Your task to perform on an android device: Add "usb-a" to the cart on newegg Image 0: 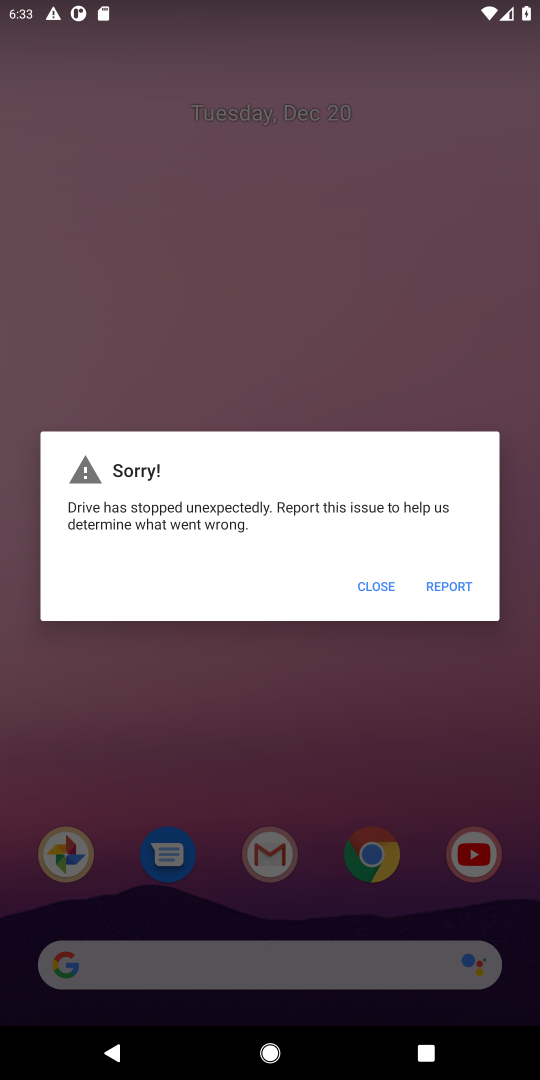
Step 0: press home button
Your task to perform on an android device: Add "usb-a" to the cart on newegg Image 1: 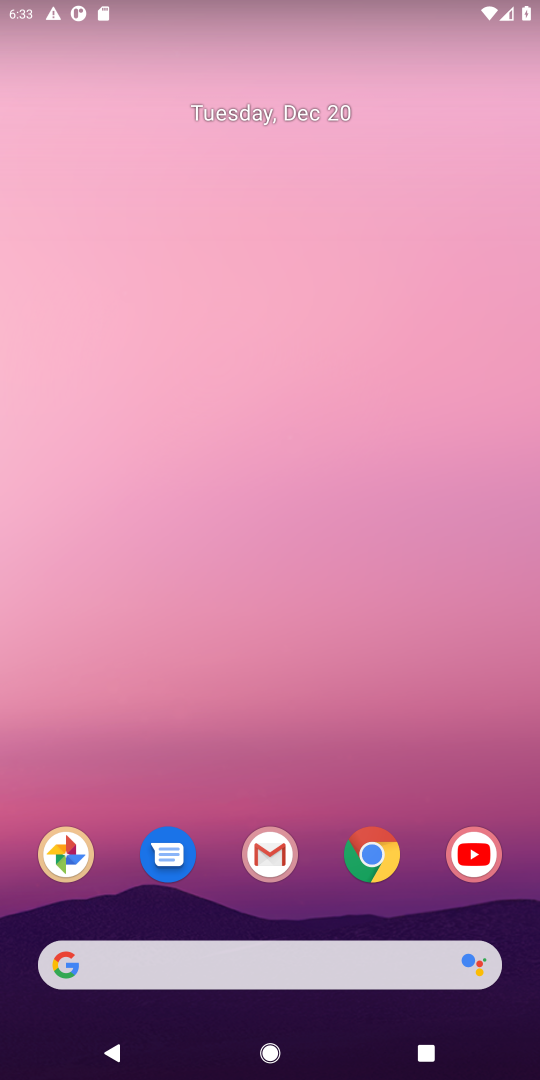
Step 1: click (371, 867)
Your task to perform on an android device: Add "usb-a" to the cart on newegg Image 2: 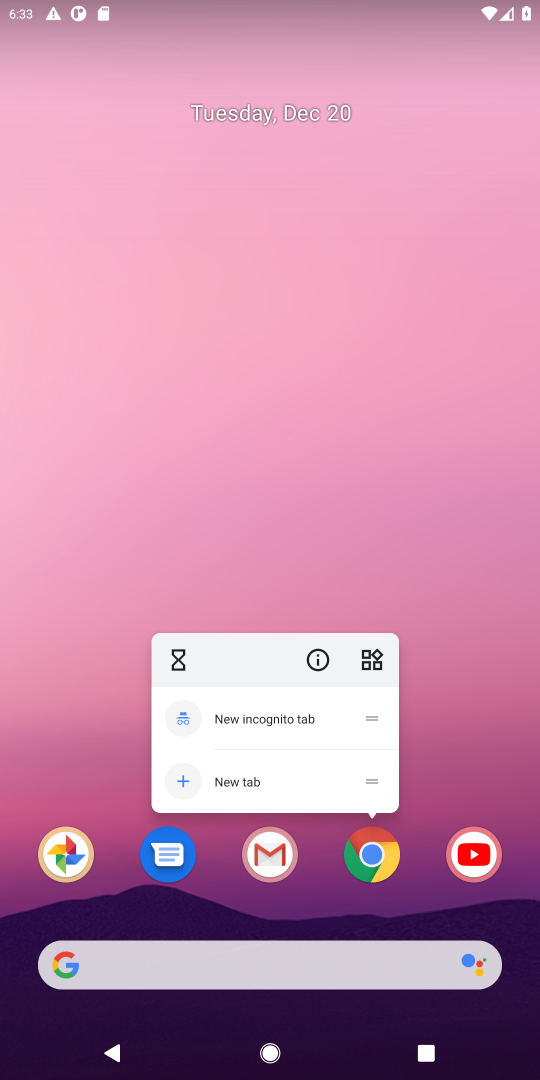
Step 2: click (370, 864)
Your task to perform on an android device: Add "usb-a" to the cart on newegg Image 3: 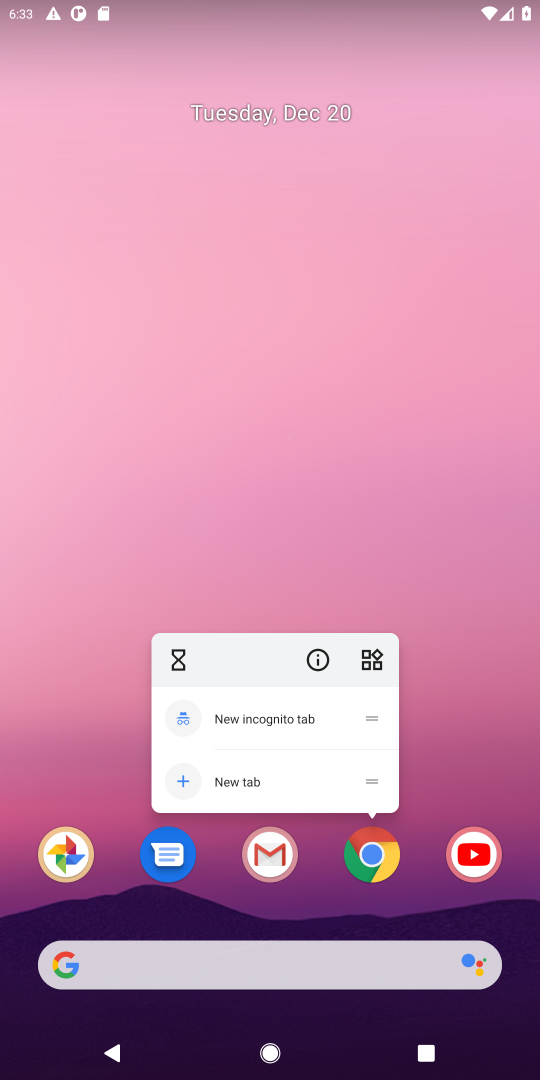
Step 3: click (373, 860)
Your task to perform on an android device: Add "usb-a" to the cart on newegg Image 4: 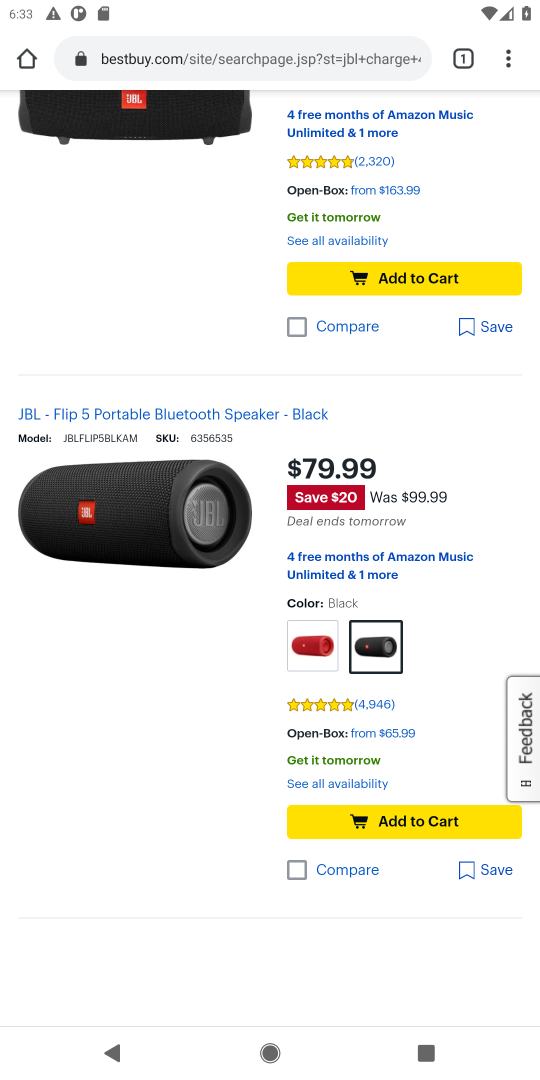
Step 4: click (164, 67)
Your task to perform on an android device: Add "usb-a" to the cart on newegg Image 5: 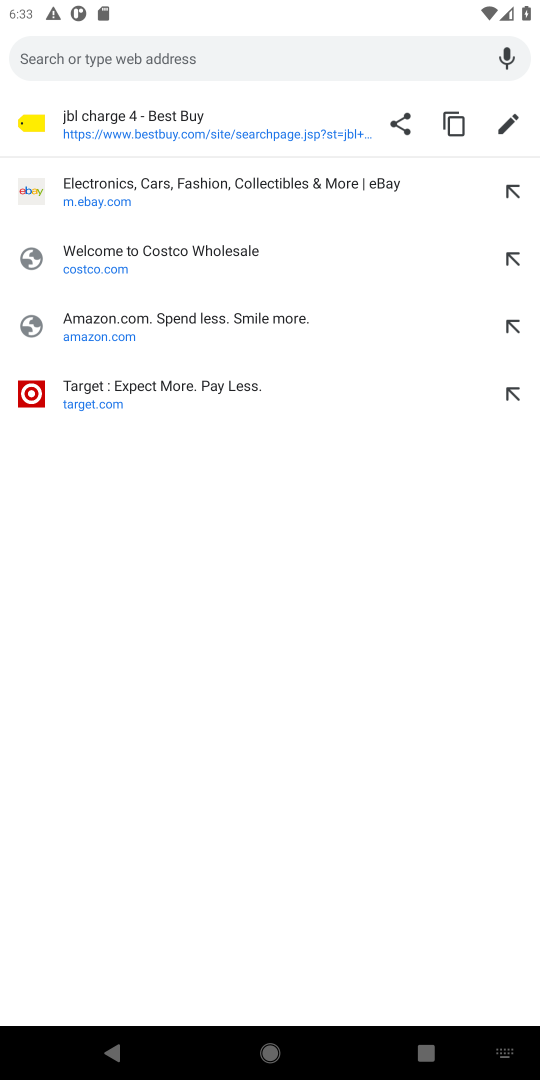
Step 5: type "newegg.com"
Your task to perform on an android device: Add "usb-a" to the cart on newegg Image 6: 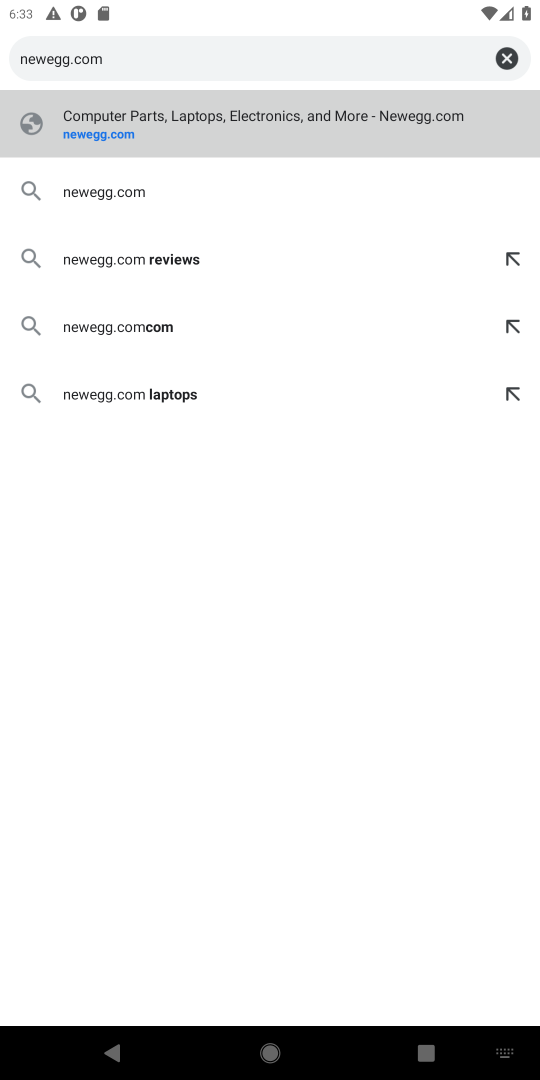
Step 6: click (98, 136)
Your task to perform on an android device: Add "usb-a" to the cart on newegg Image 7: 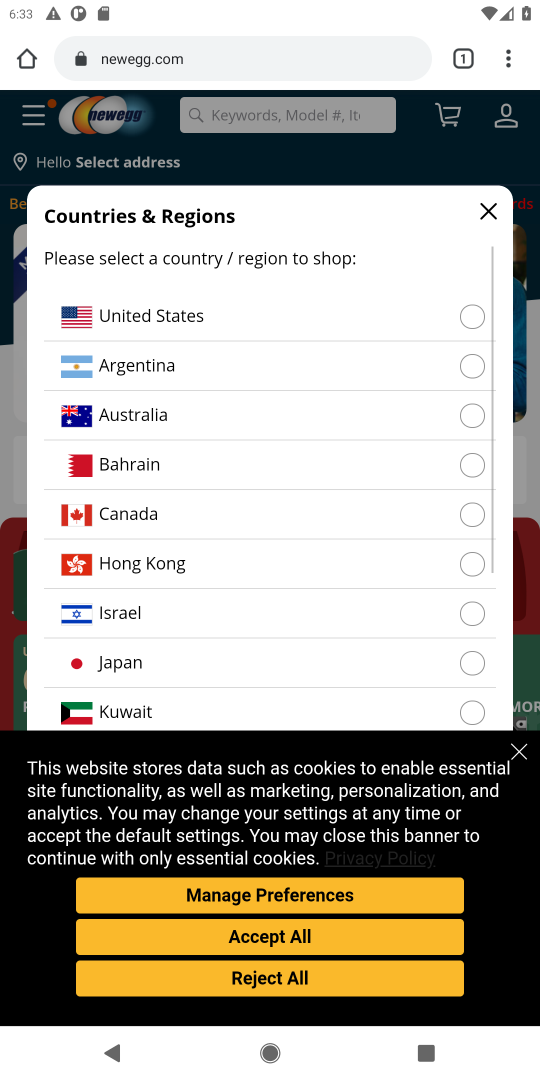
Step 7: click (522, 760)
Your task to perform on an android device: Add "usb-a" to the cart on newegg Image 8: 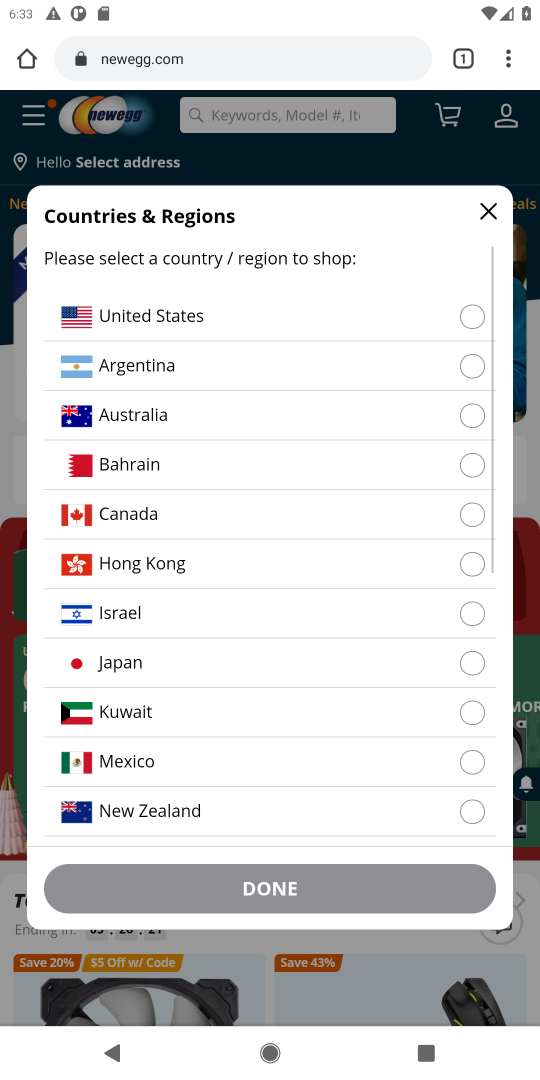
Step 8: click (139, 314)
Your task to perform on an android device: Add "usb-a" to the cart on newegg Image 9: 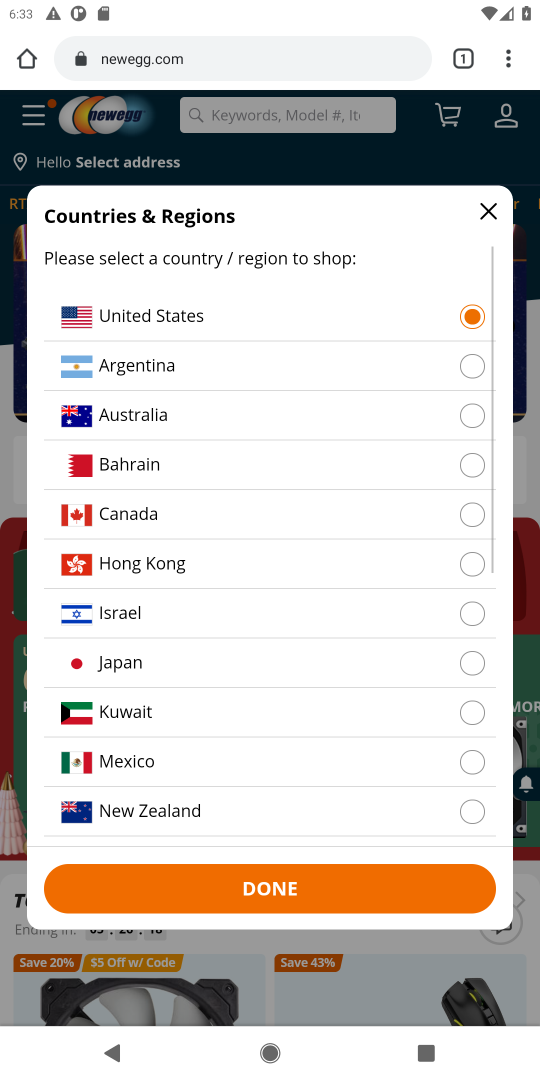
Step 9: click (284, 886)
Your task to perform on an android device: Add "usb-a" to the cart on newegg Image 10: 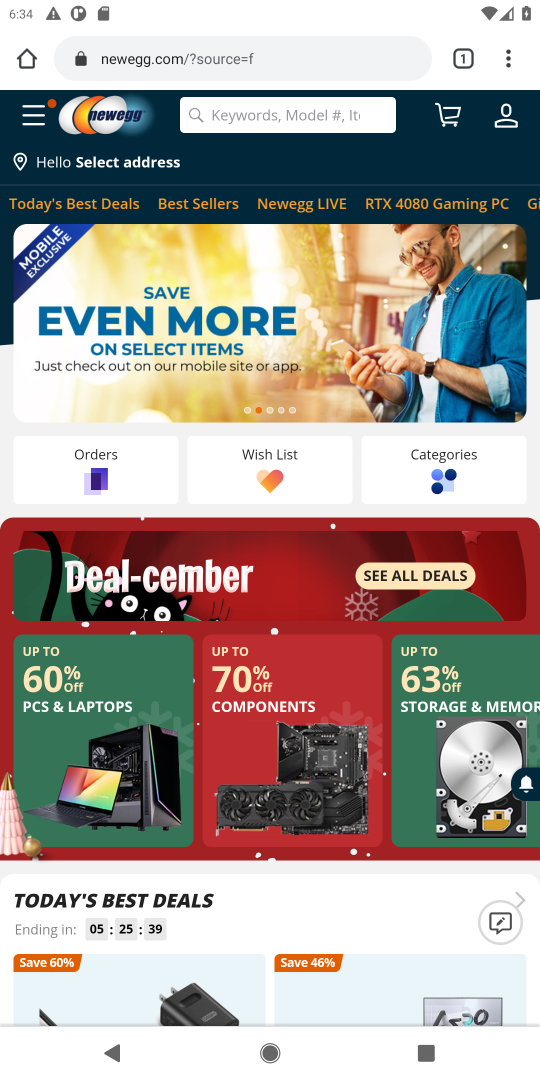
Step 10: click (236, 120)
Your task to perform on an android device: Add "usb-a" to the cart on newegg Image 11: 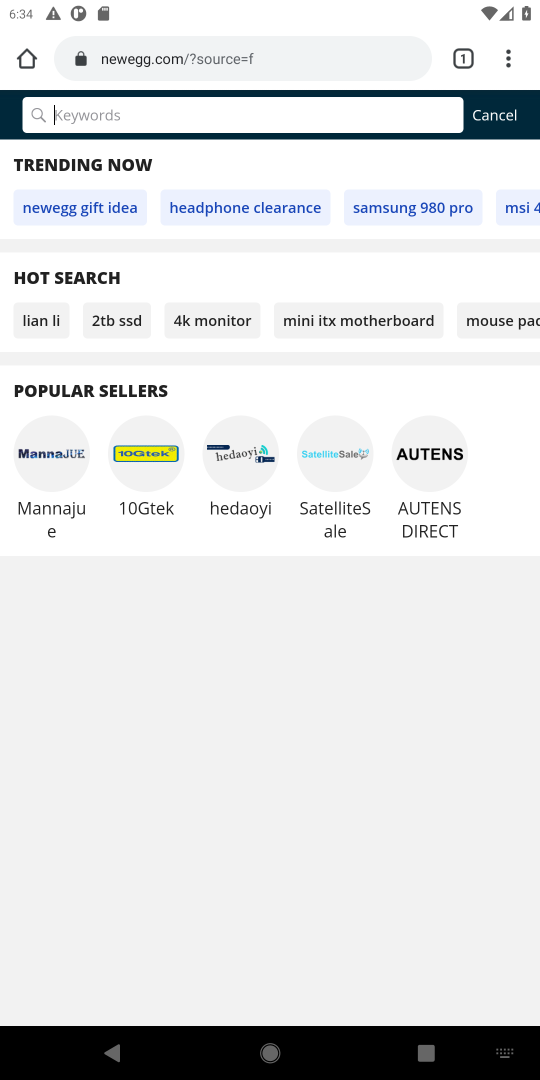
Step 11: type "usb-a"
Your task to perform on an android device: Add "usb-a" to the cart on newegg Image 12: 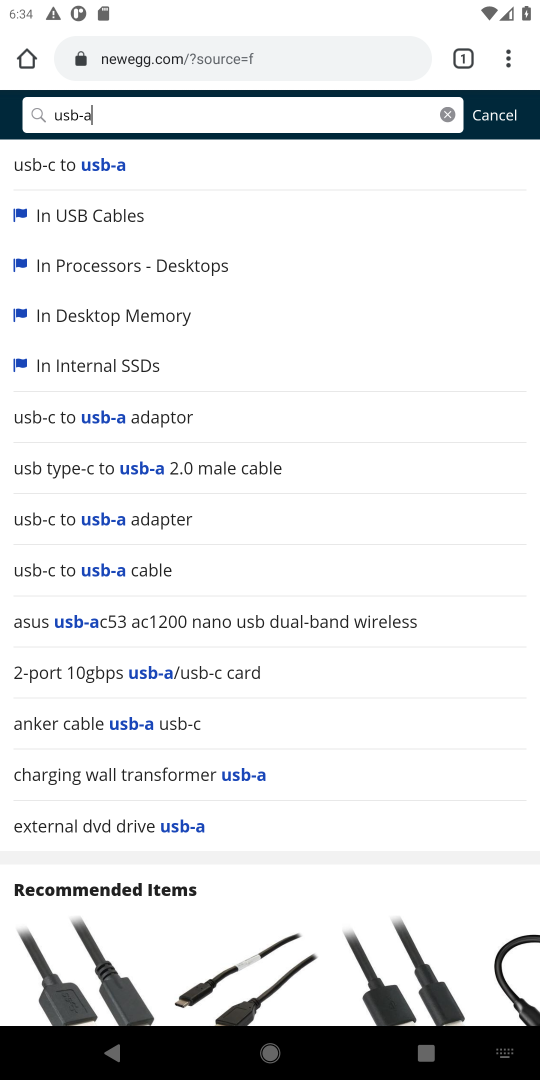
Step 12: click (68, 159)
Your task to perform on an android device: Add "usb-a" to the cart on newegg Image 13: 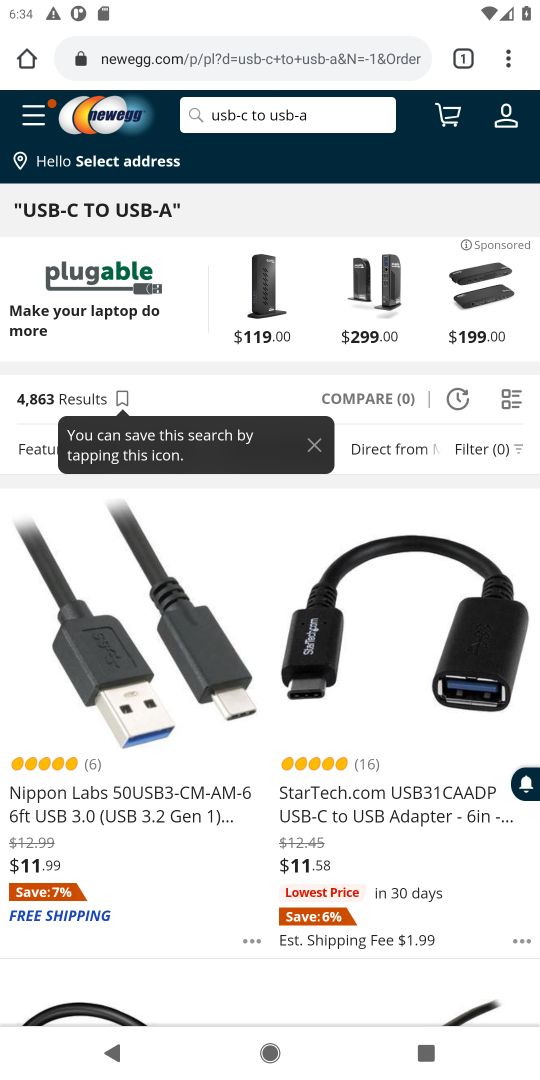
Step 13: drag from (200, 775) to (187, 514)
Your task to perform on an android device: Add "usb-a" to the cart on newegg Image 14: 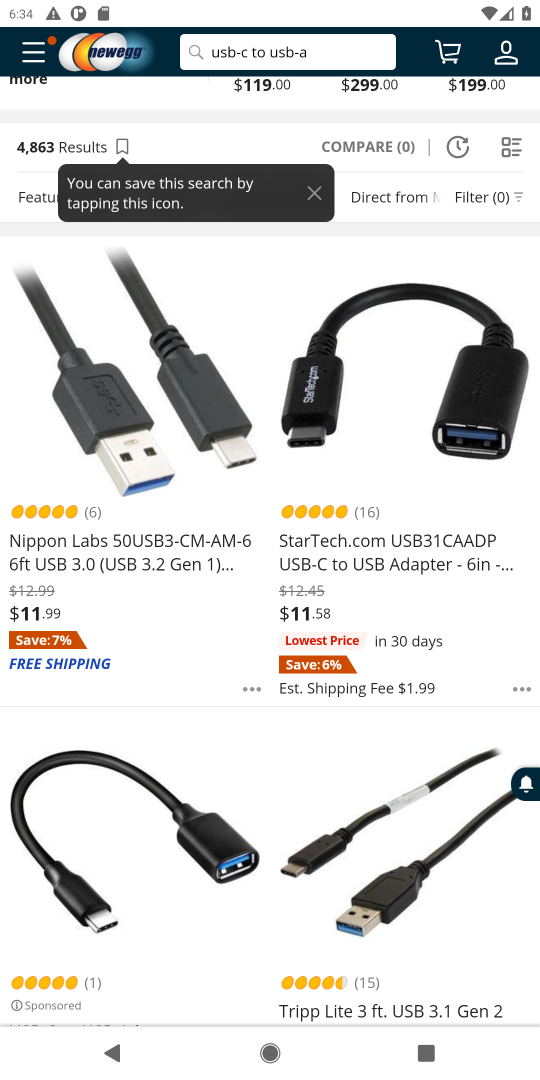
Step 14: drag from (129, 662) to (124, 299)
Your task to perform on an android device: Add "usb-a" to the cart on newegg Image 15: 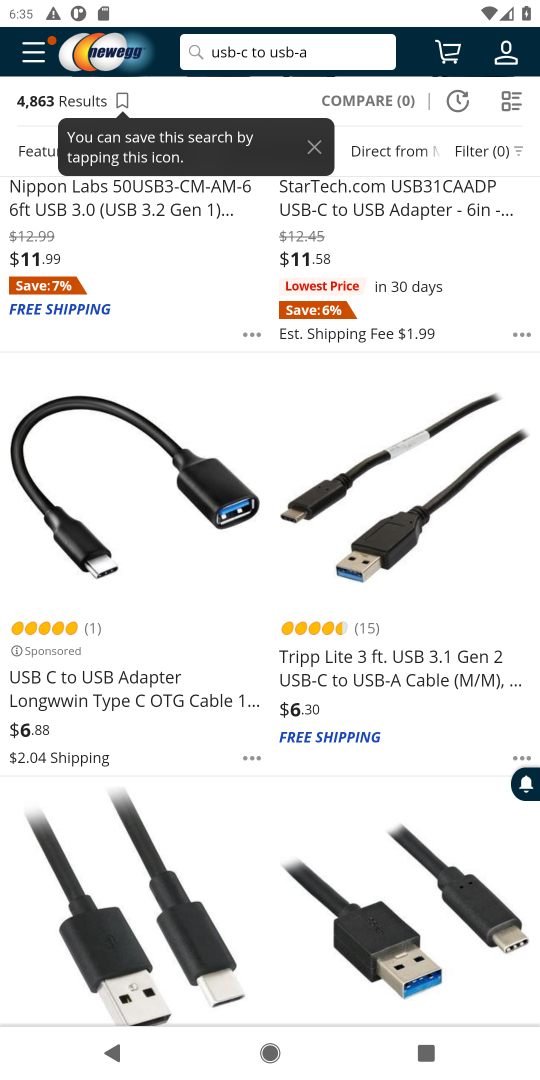
Step 15: click (377, 674)
Your task to perform on an android device: Add "usb-a" to the cart on newegg Image 16: 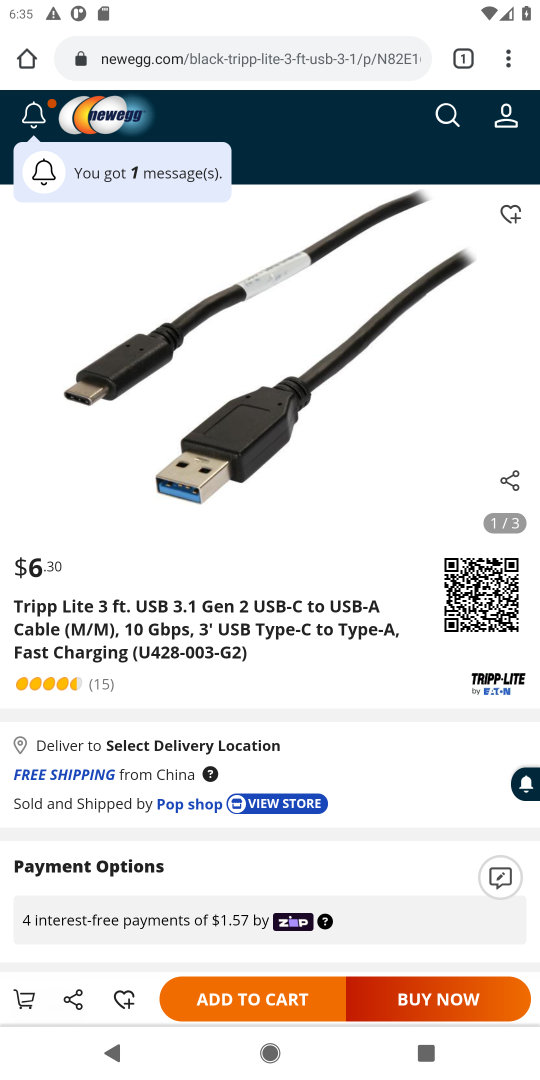
Step 16: click (275, 1004)
Your task to perform on an android device: Add "usb-a" to the cart on newegg Image 17: 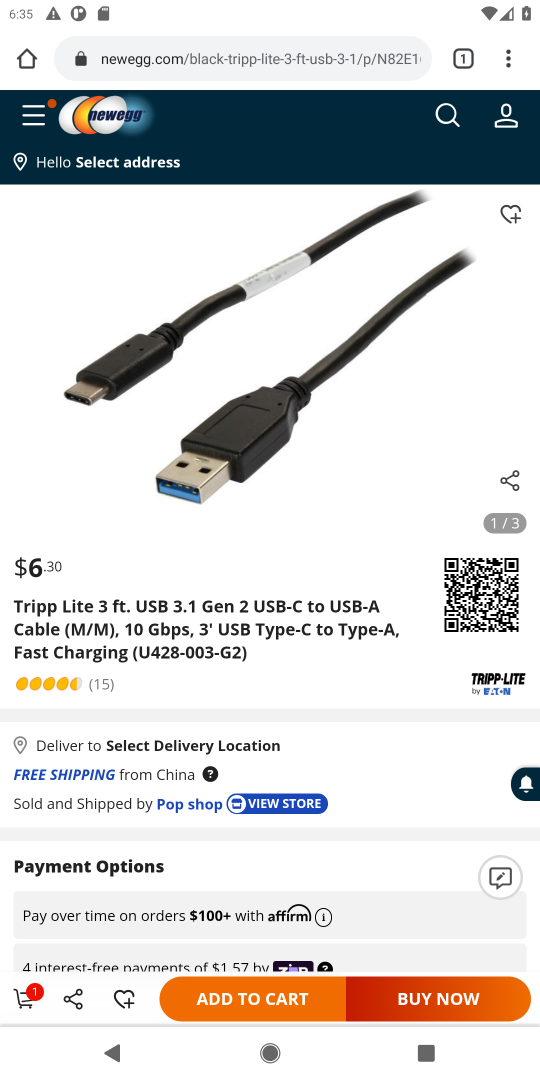
Step 17: task complete